Your task to perform on an android device: Open Reddit.com Image 0: 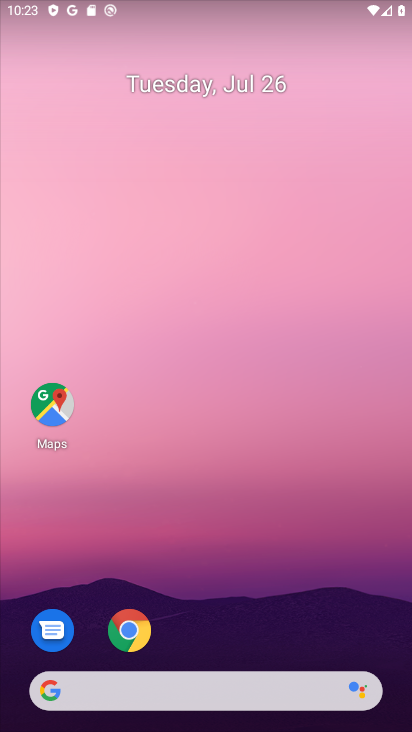
Step 0: click (280, 691)
Your task to perform on an android device: Open Reddit.com Image 1: 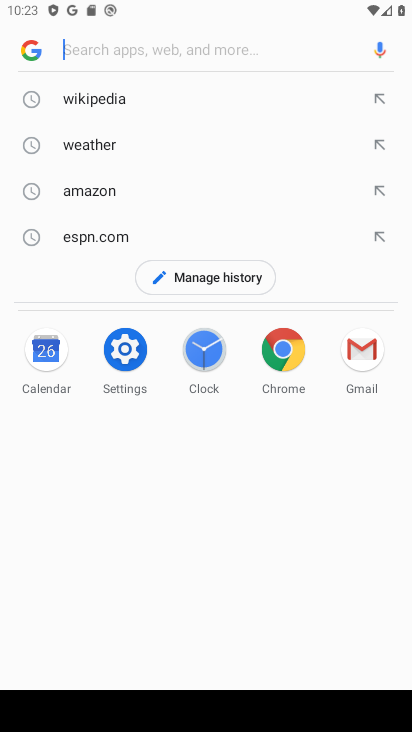
Step 1: type "reddit.com"
Your task to perform on an android device: Open Reddit.com Image 2: 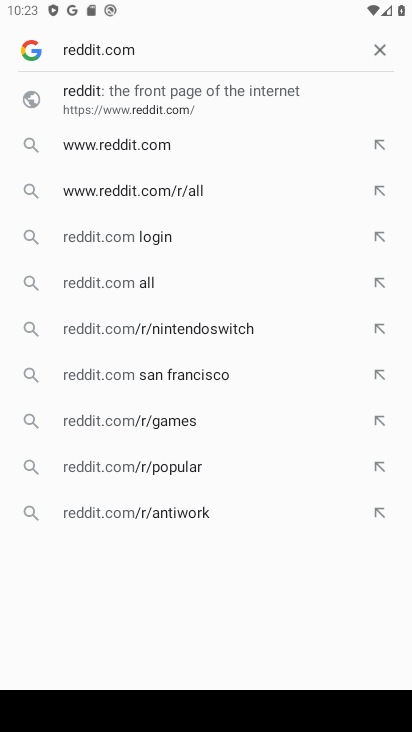
Step 2: click (106, 111)
Your task to perform on an android device: Open Reddit.com Image 3: 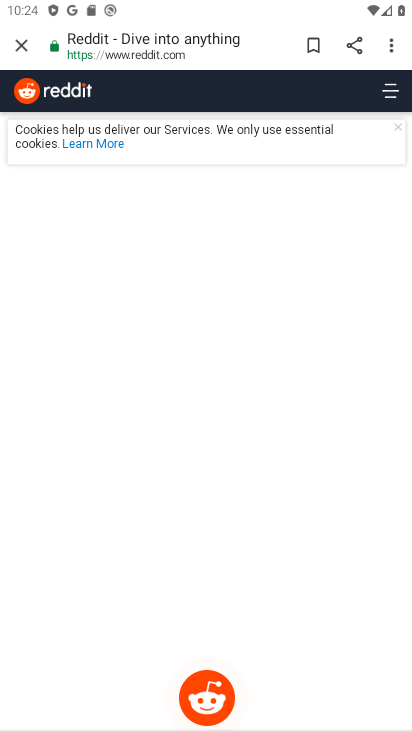
Step 3: task complete